Your task to perform on an android device: Is it going to rain this weekend? Image 0: 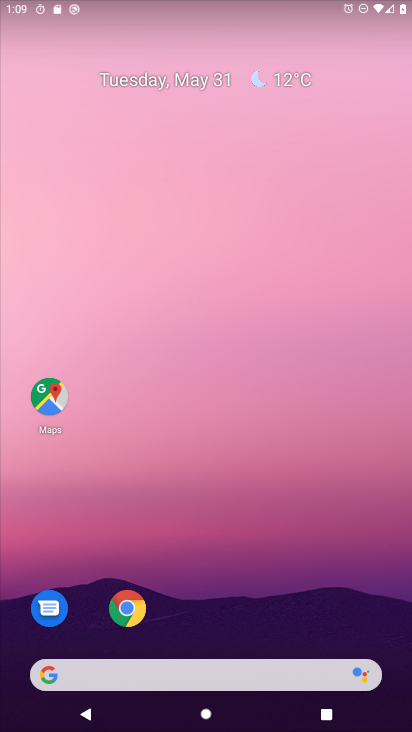
Step 0: click (294, 83)
Your task to perform on an android device: Is it going to rain this weekend? Image 1: 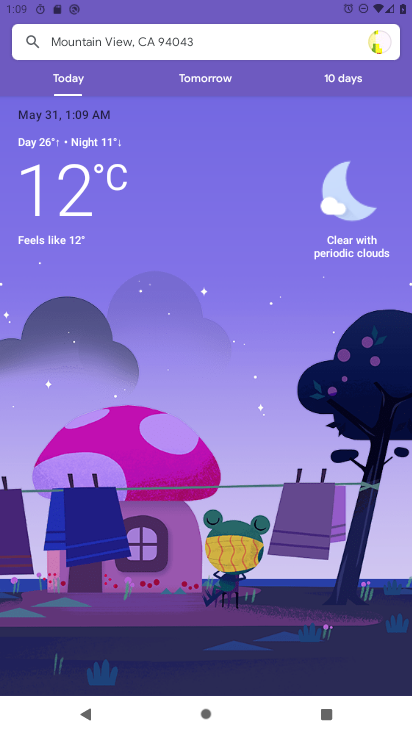
Step 1: click (349, 78)
Your task to perform on an android device: Is it going to rain this weekend? Image 2: 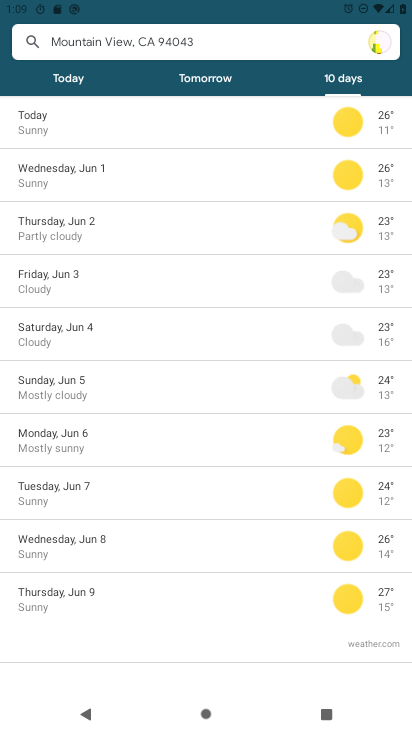
Step 2: task complete